Your task to perform on an android device: set the stopwatch Image 0: 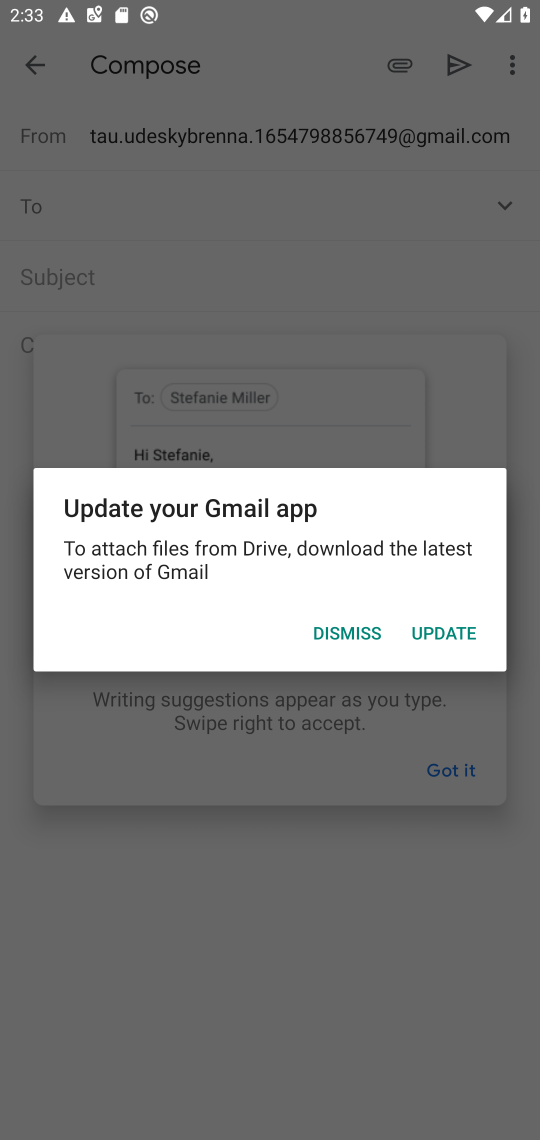
Step 0: press home button
Your task to perform on an android device: set the stopwatch Image 1: 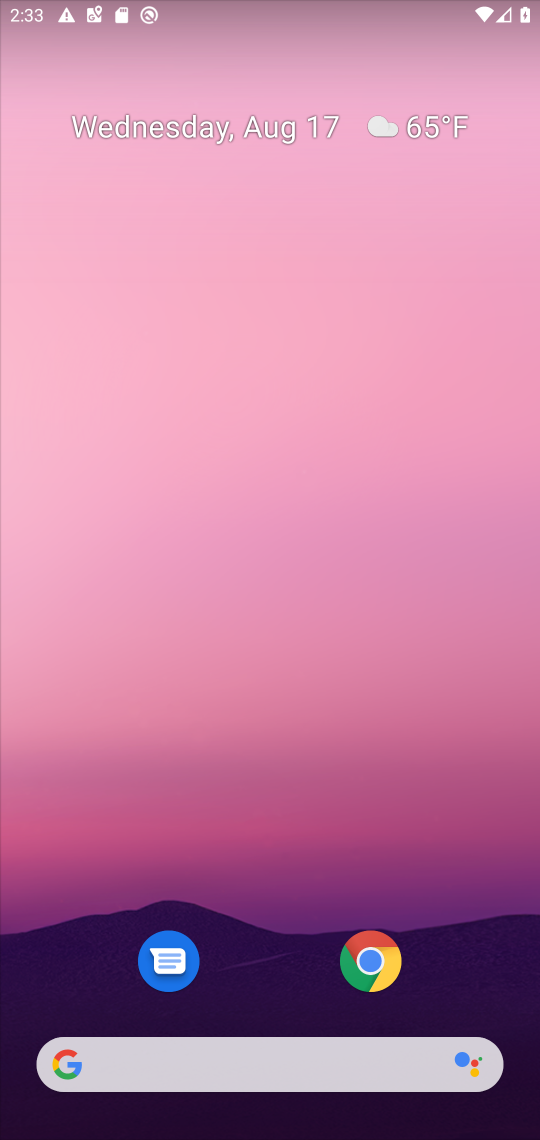
Step 1: drag from (318, 854) to (539, 426)
Your task to perform on an android device: set the stopwatch Image 2: 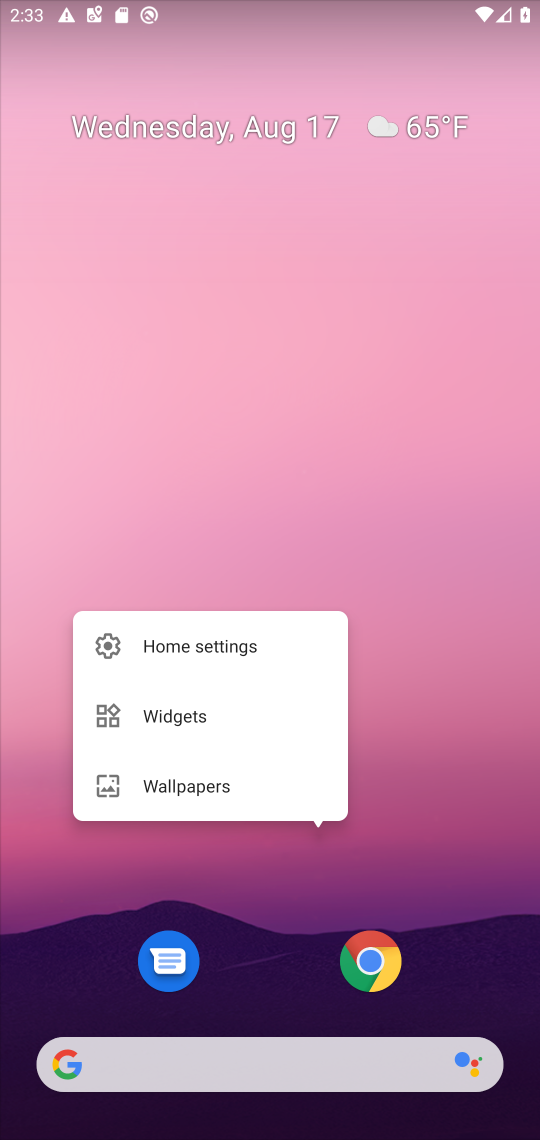
Step 2: click (448, 857)
Your task to perform on an android device: set the stopwatch Image 3: 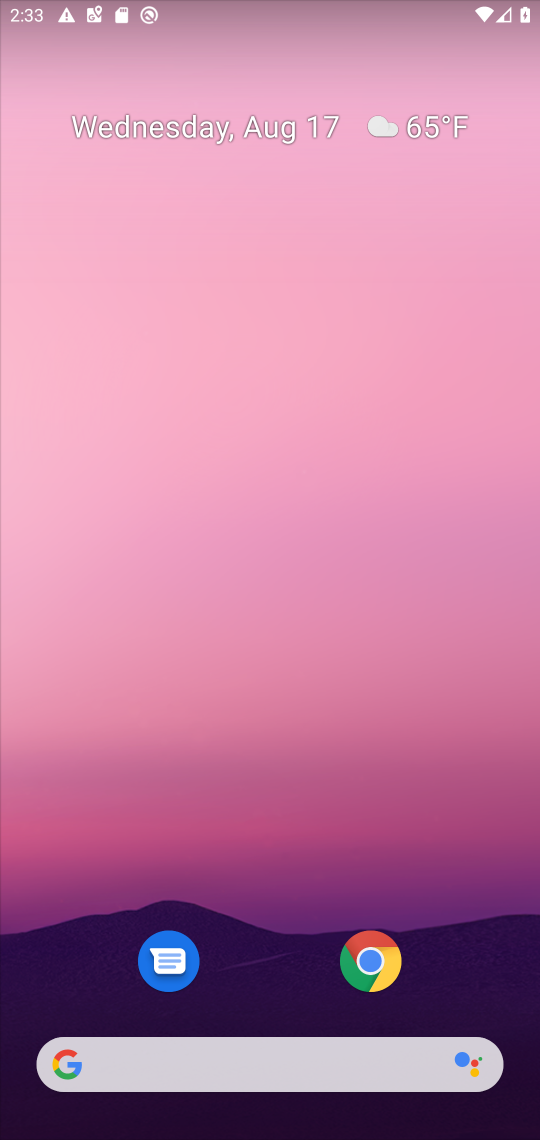
Step 3: drag from (296, 1071) to (537, 803)
Your task to perform on an android device: set the stopwatch Image 4: 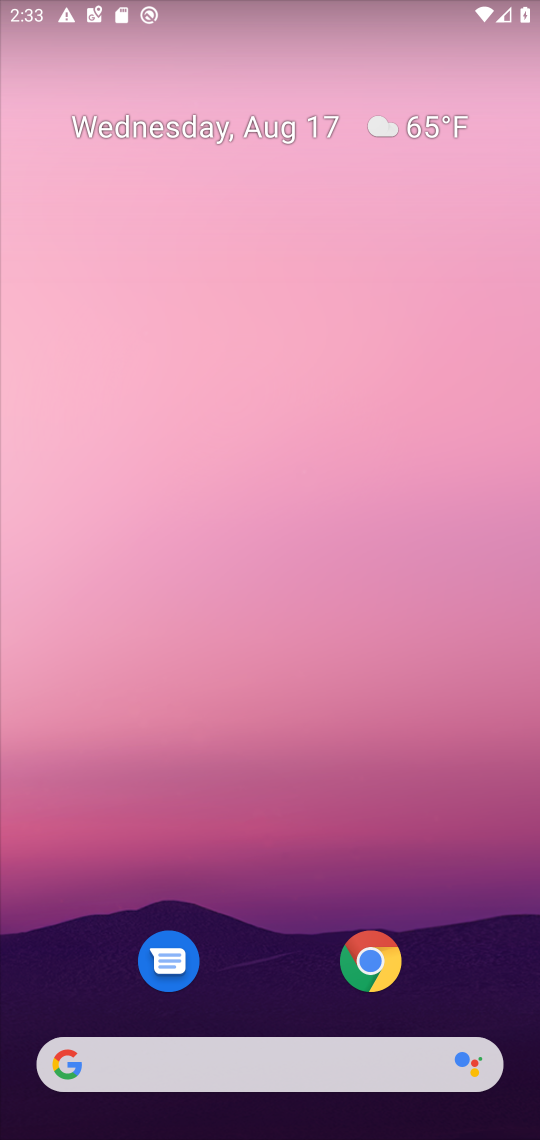
Step 4: drag from (256, 1058) to (512, 11)
Your task to perform on an android device: set the stopwatch Image 5: 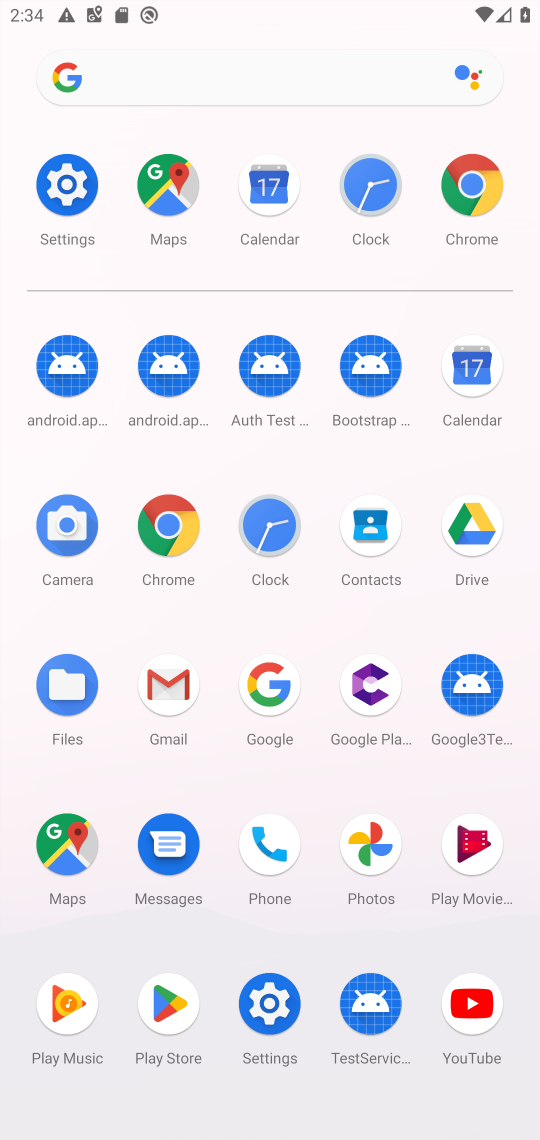
Step 5: click (279, 560)
Your task to perform on an android device: set the stopwatch Image 6: 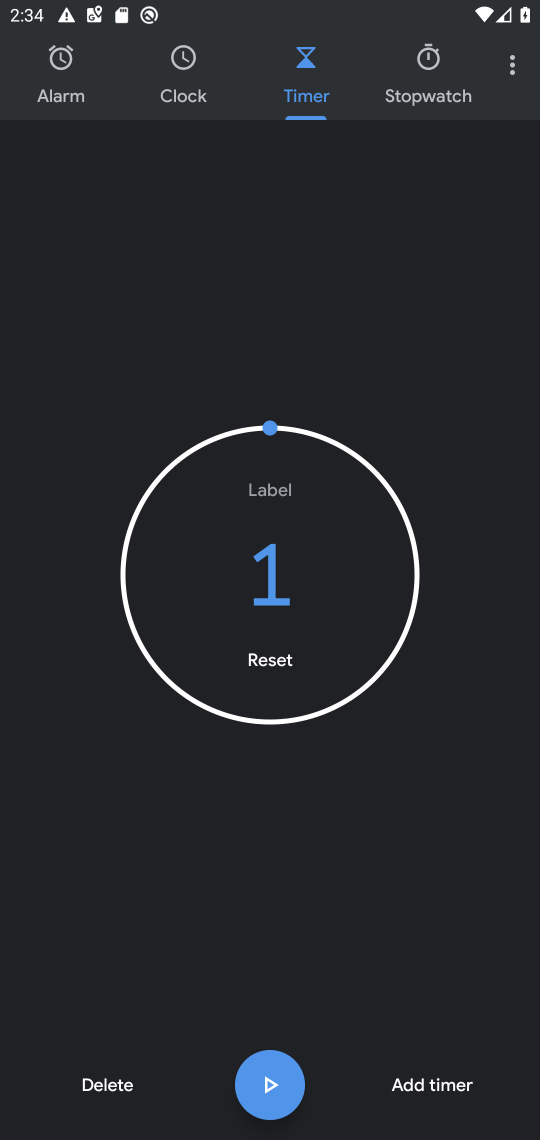
Step 6: click (426, 74)
Your task to perform on an android device: set the stopwatch Image 7: 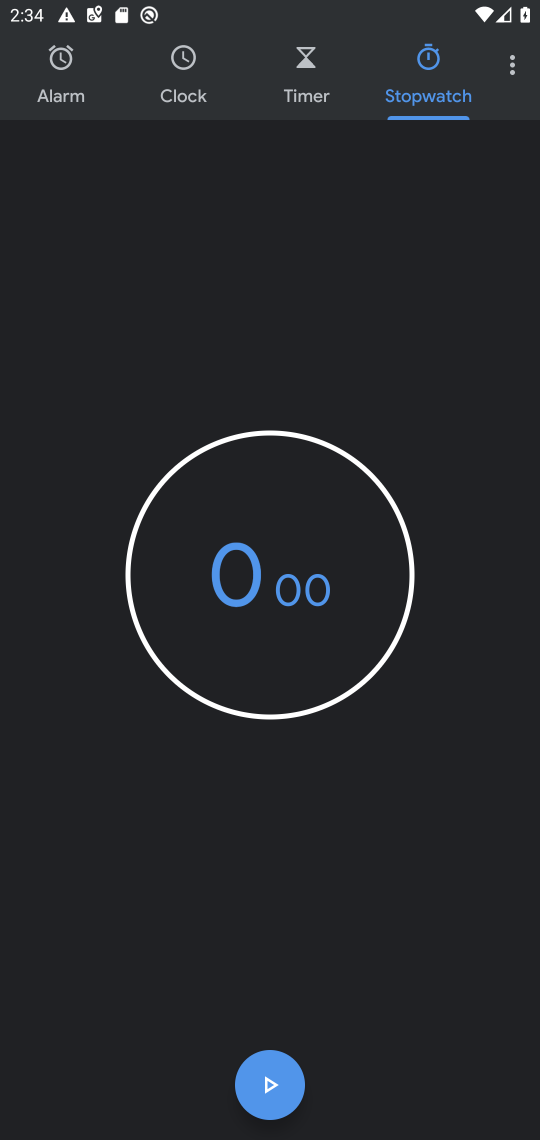
Step 7: click (271, 1089)
Your task to perform on an android device: set the stopwatch Image 8: 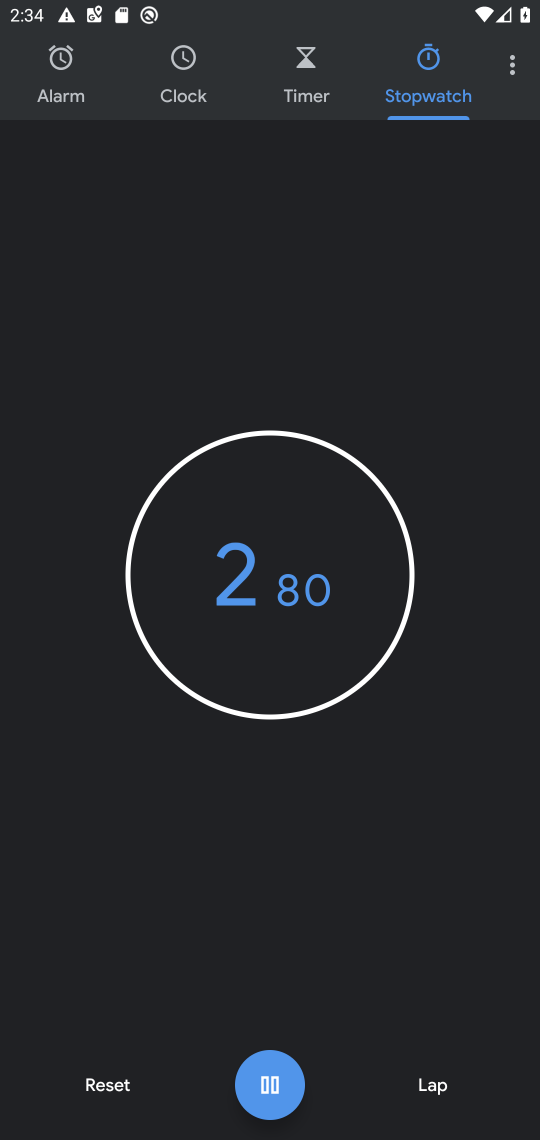
Step 8: task complete